Your task to perform on an android device: check out phone information Image 0: 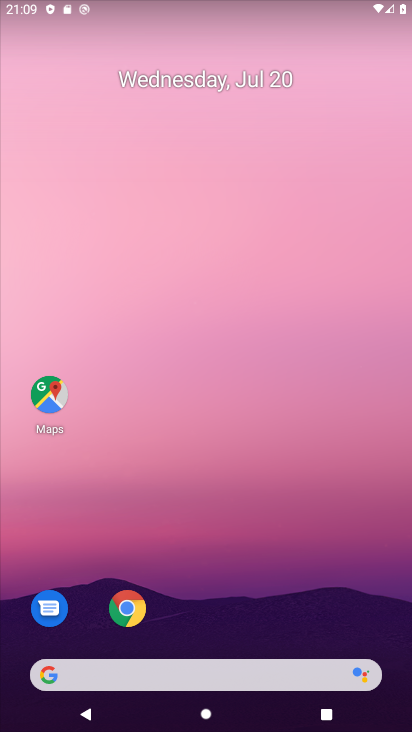
Step 0: drag from (255, 699) to (205, 143)
Your task to perform on an android device: check out phone information Image 1: 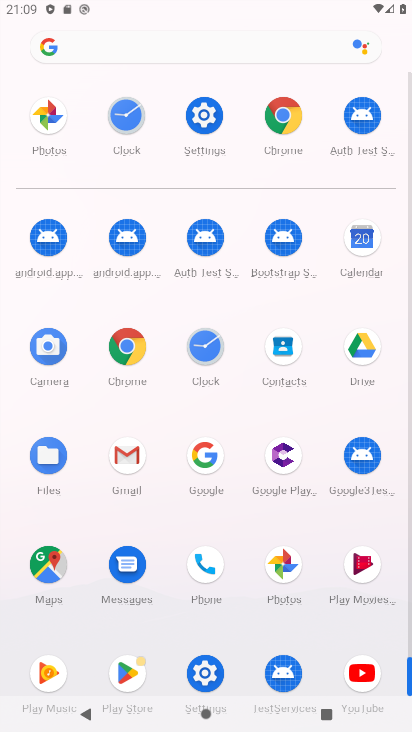
Step 1: click (207, 119)
Your task to perform on an android device: check out phone information Image 2: 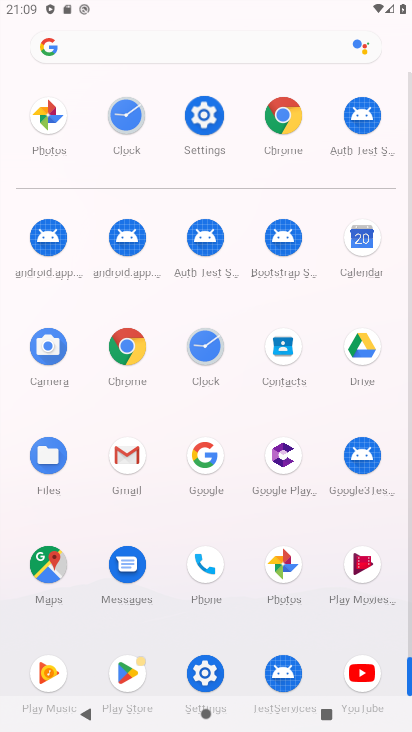
Step 2: click (209, 115)
Your task to perform on an android device: check out phone information Image 3: 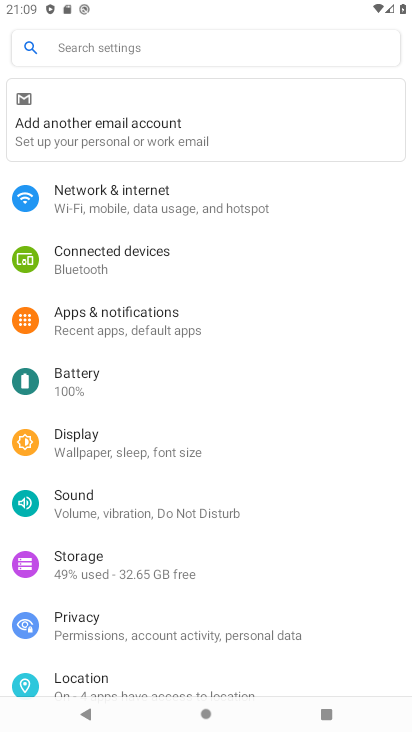
Step 3: drag from (139, 572) to (178, 110)
Your task to perform on an android device: check out phone information Image 4: 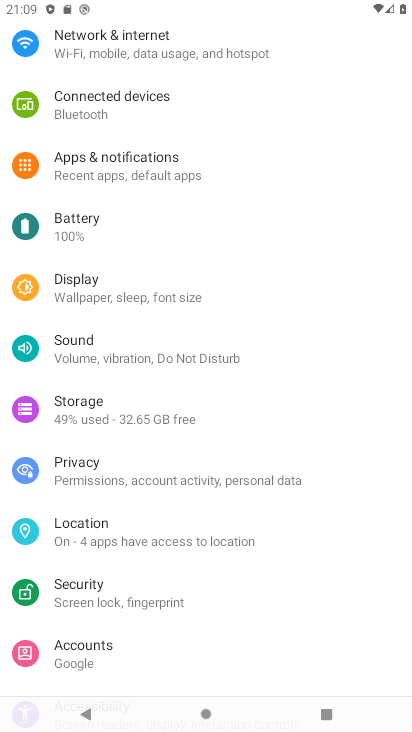
Step 4: drag from (157, 404) to (150, 209)
Your task to perform on an android device: check out phone information Image 5: 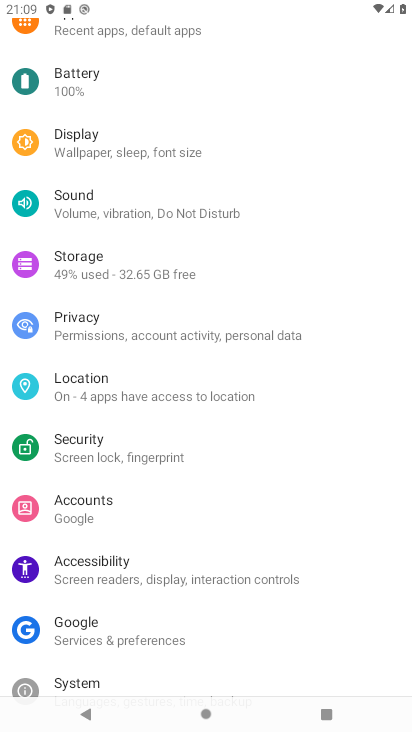
Step 5: drag from (150, 480) to (149, 206)
Your task to perform on an android device: check out phone information Image 6: 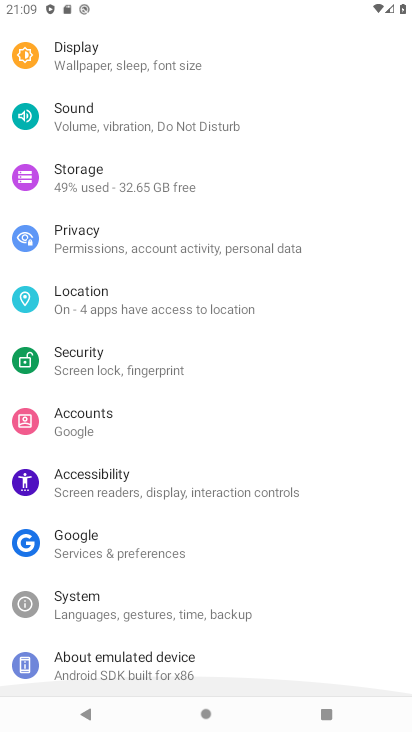
Step 6: drag from (167, 516) to (179, 296)
Your task to perform on an android device: check out phone information Image 7: 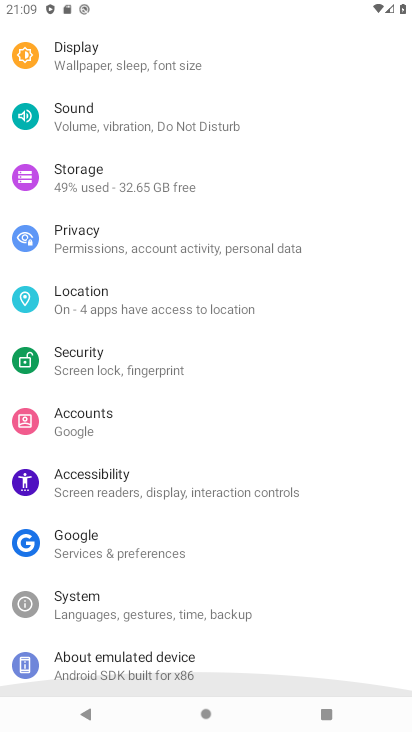
Step 7: drag from (189, 609) to (185, 571)
Your task to perform on an android device: check out phone information Image 8: 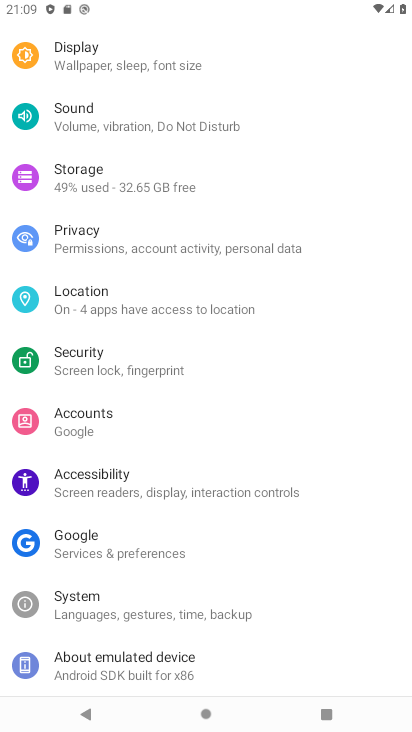
Step 8: click (140, 656)
Your task to perform on an android device: check out phone information Image 9: 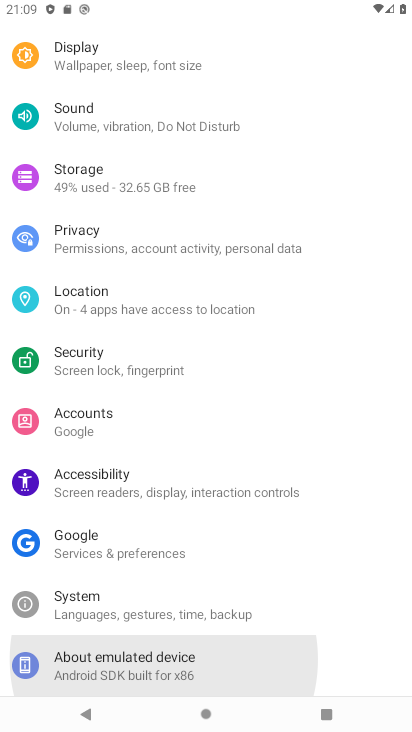
Step 9: click (140, 656)
Your task to perform on an android device: check out phone information Image 10: 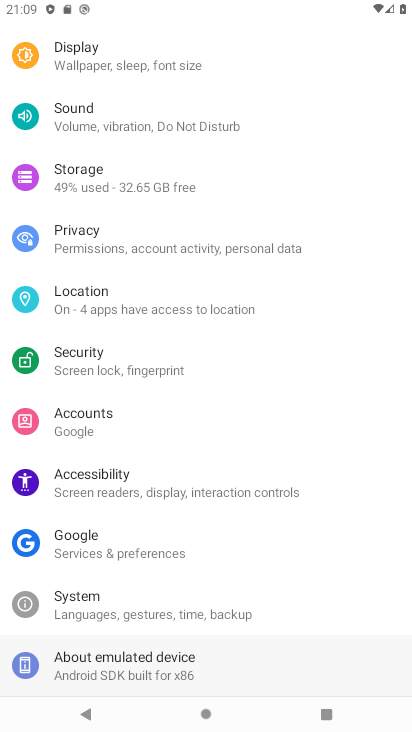
Step 10: click (140, 656)
Your task to perform on an android device: check out phone information Image 11: 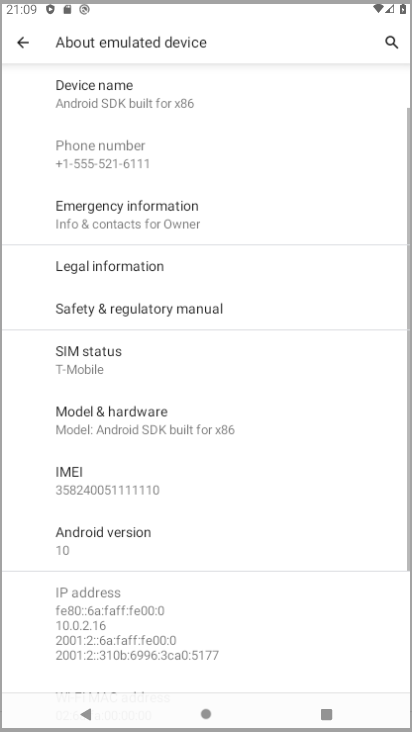
Step 11: click (141, 657)
Your task to perform on an android device: check out phone information Image 12: 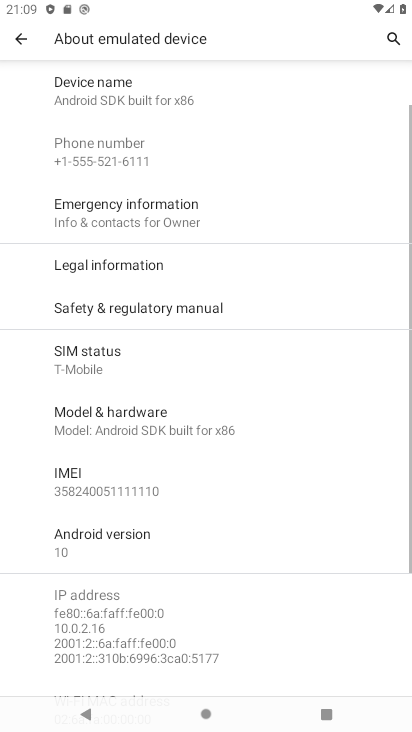
Step 12: task complete